Your task to perform on an android device: Open wifi settings Image 0: 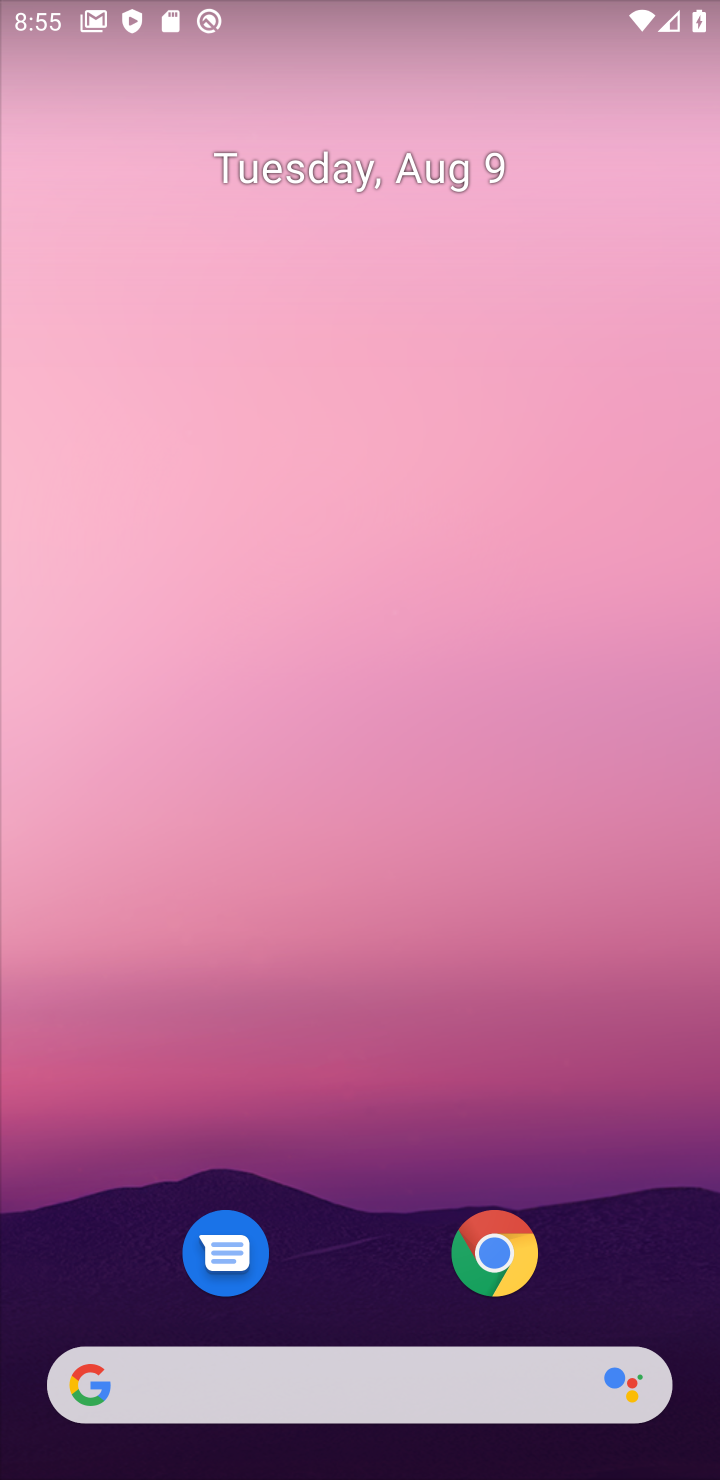
Step 0: drag from (310, 971) to (291, 88)
Your task to perform on an android device: Open wifi settings Image 1: 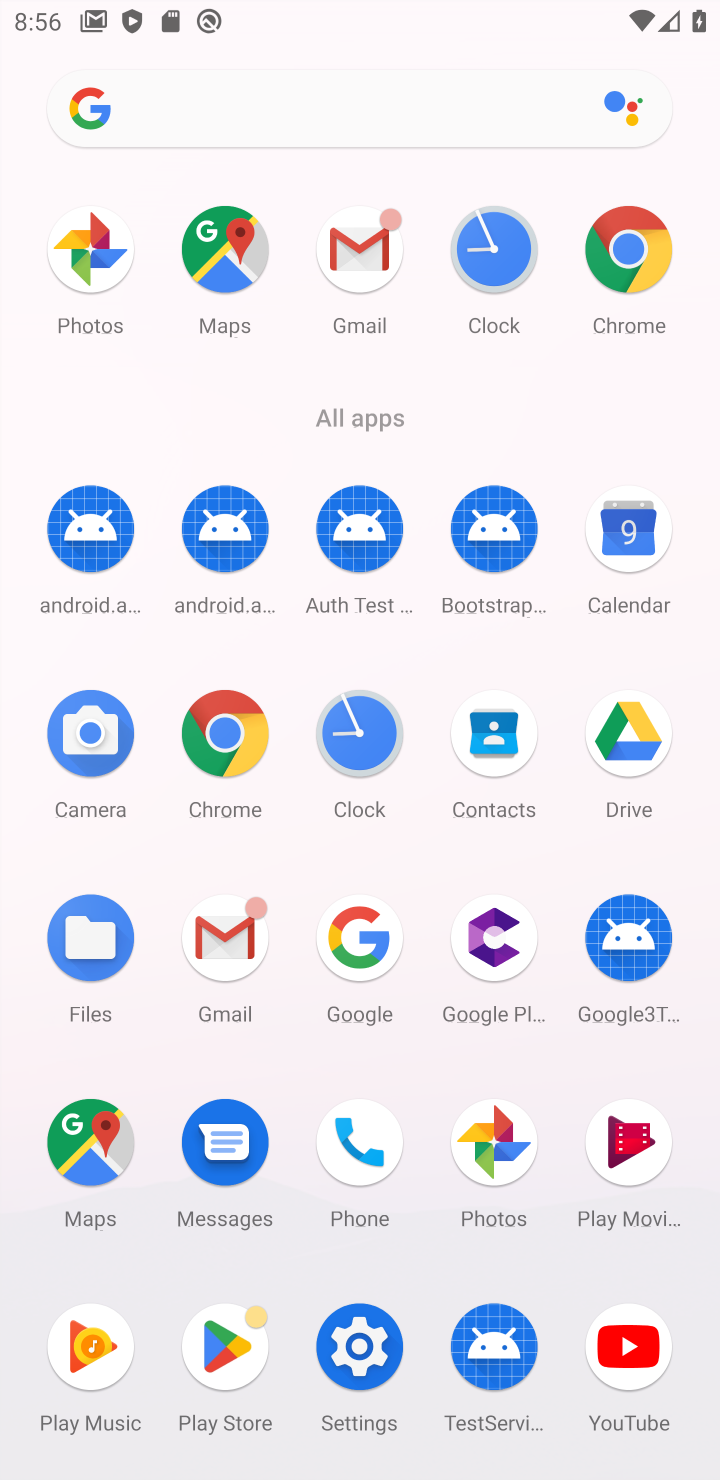
Step 1: click (357, 1336)
Your task to perform on an android device: Open wifi settings Image 2: 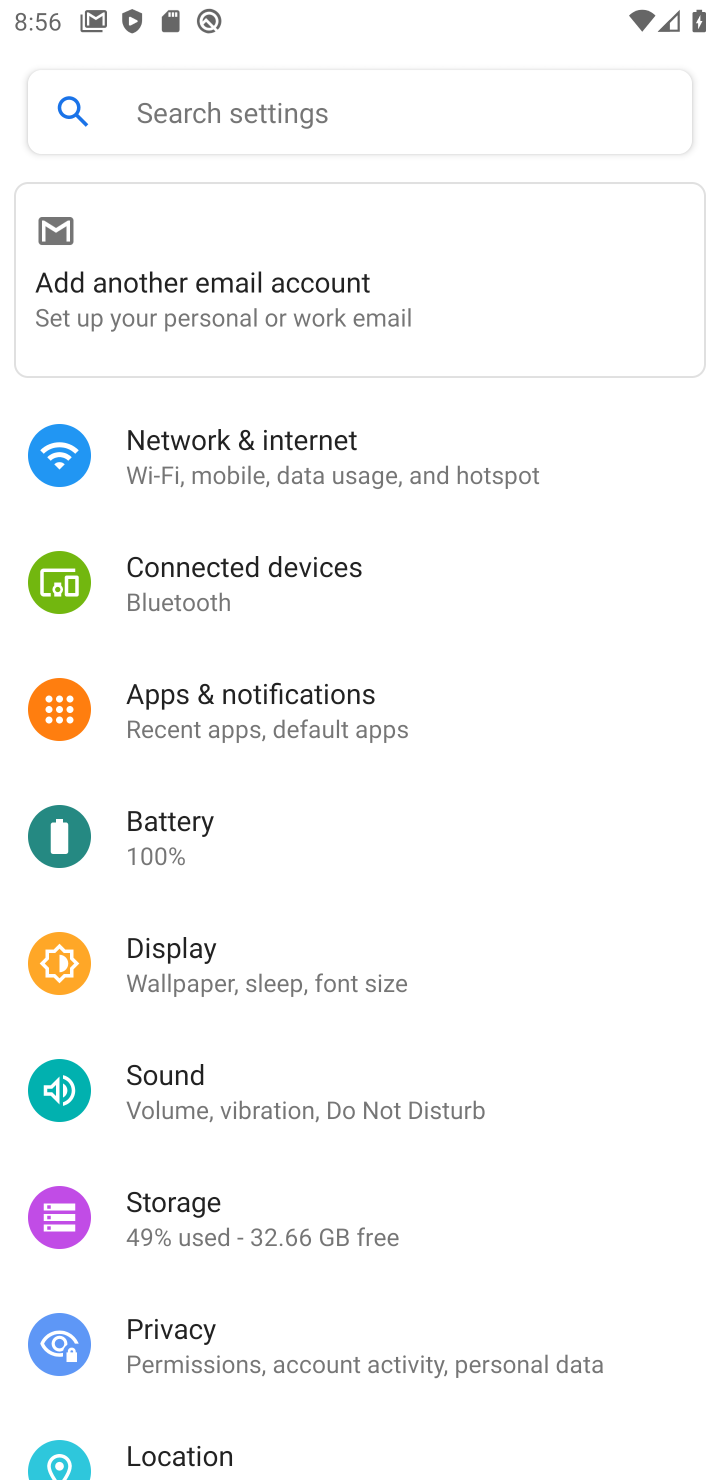
Step 2: click (251, 445)
Your task to perform on an android device: Open wifi settings Image 3: 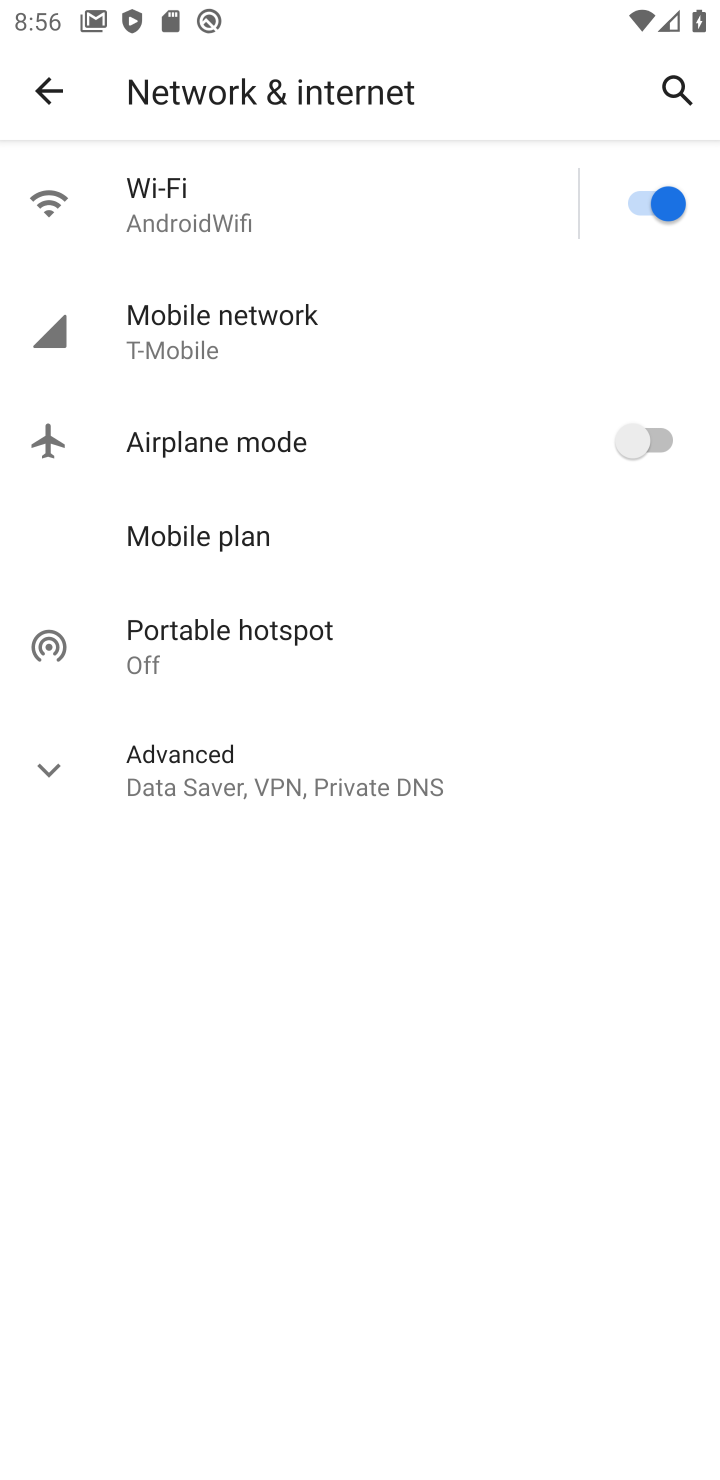
Step 3: click (325, 197)
Your task to perform on an android device: Open wifi settings Image 4: 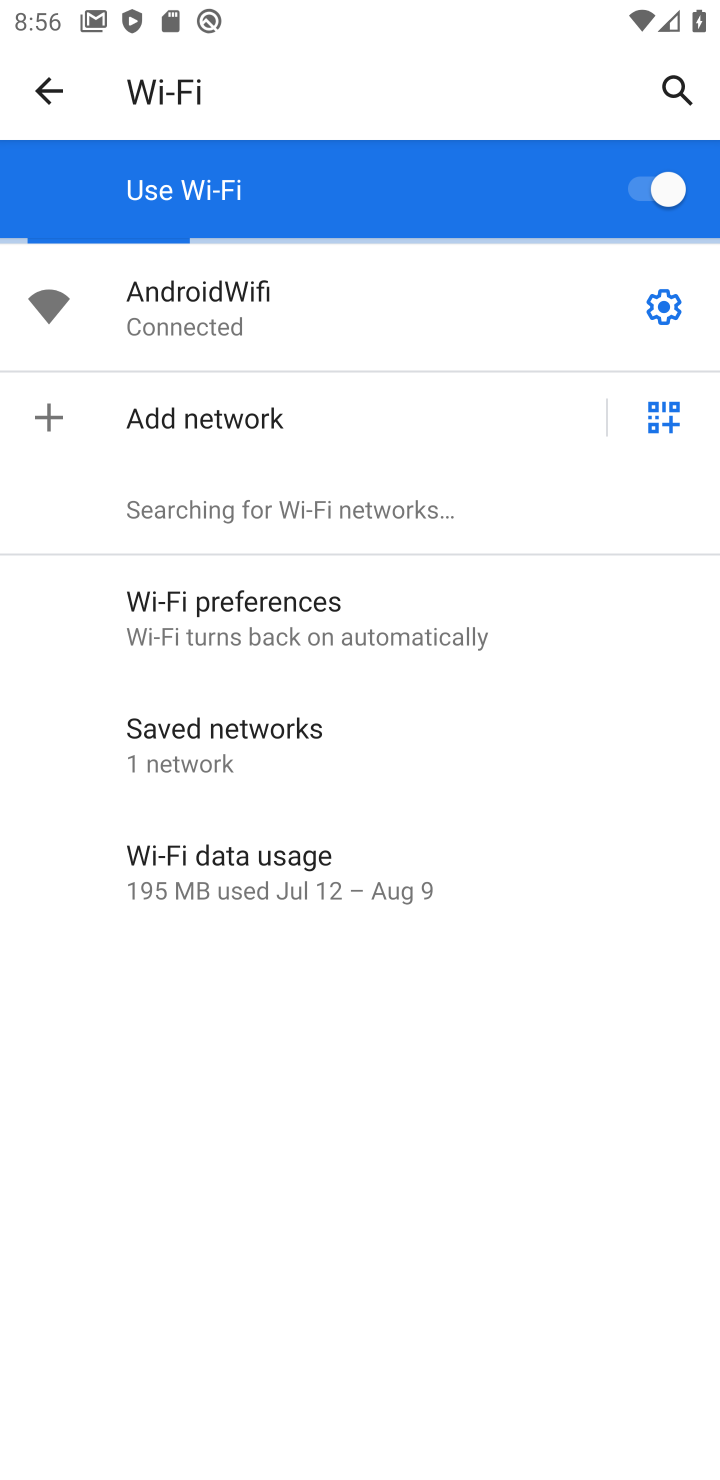
Step 4: click (665, 315)
Your task to perform on an android device: Open wifi settings Image 5: 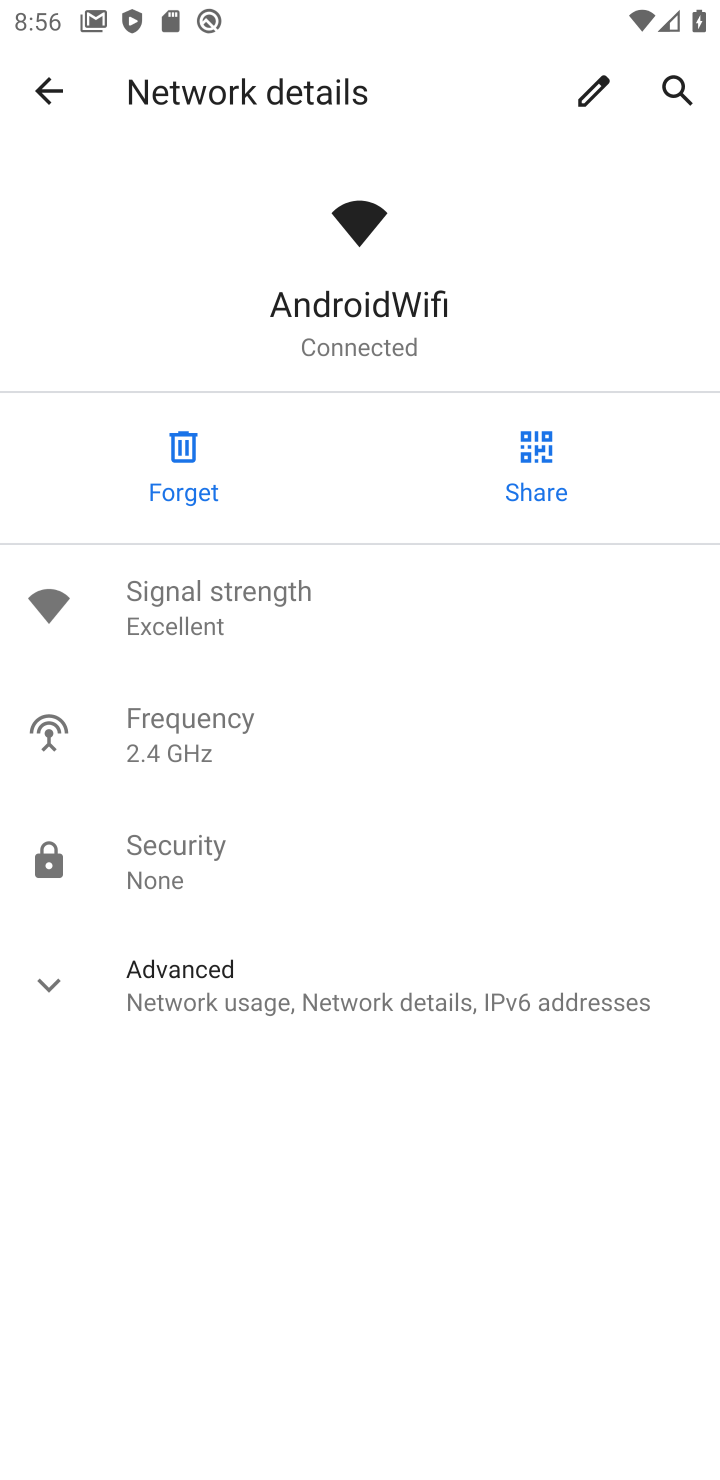
Step 5: task complete